Your task to perform on an android device: turn pop-ups on in chrome Image 0: 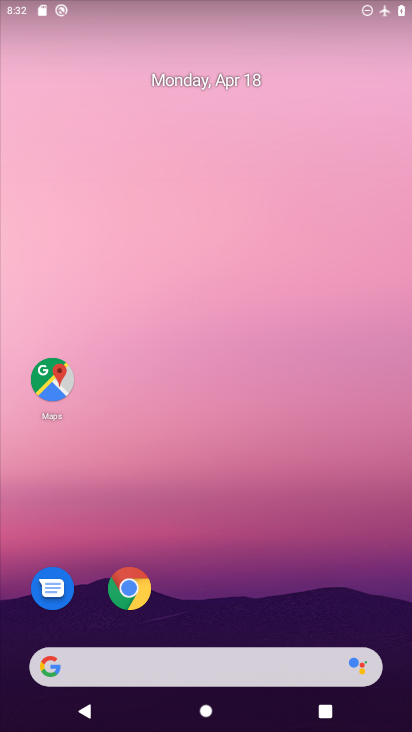
Step 0: click (133, 594)
Your task to perform on an android device: turn pop-ups on in chrome Image 1: 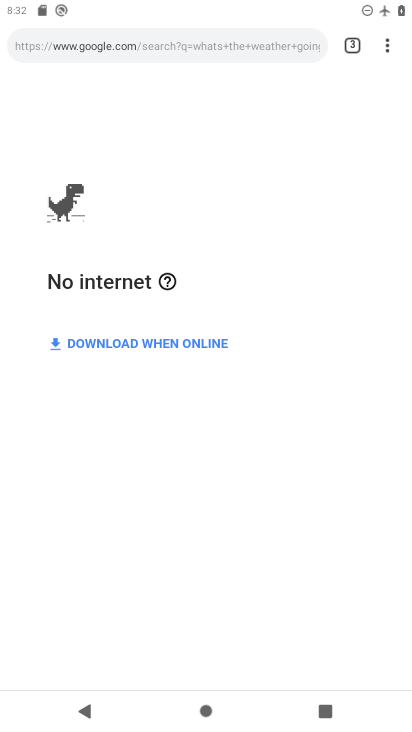
Step 1: click (384, 49)
Your task to perform on an android device: turn pop-ups on in chrome Image 2: 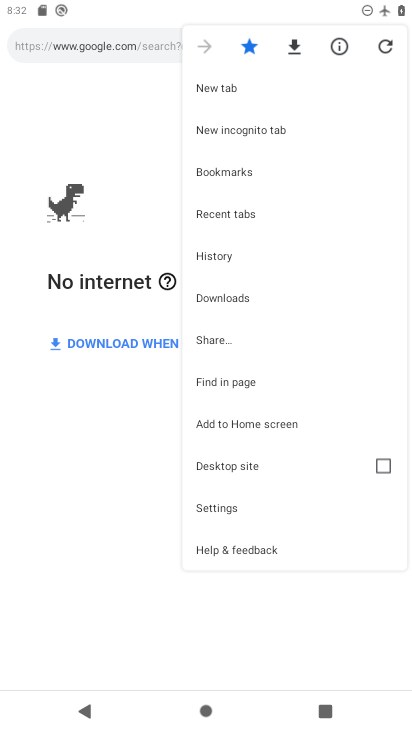
Step 2: click (218, 500)
Your task to perform on an android device: turn pop-ups on in chrome Image 3: 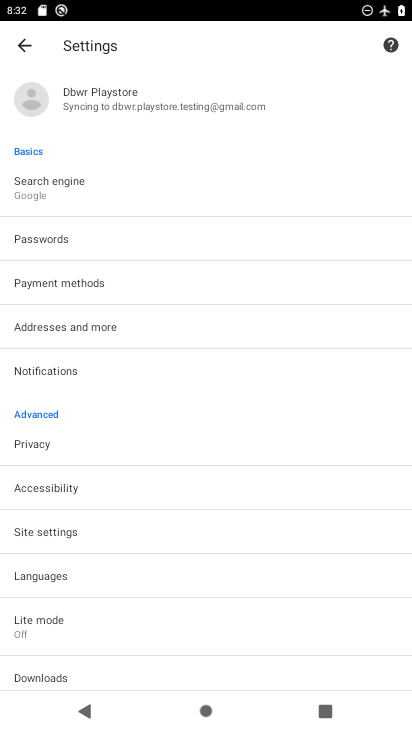
Step 3: click (54, 533)
Your task to perform on an android device: turn pop-ups on in chrome Image 4: 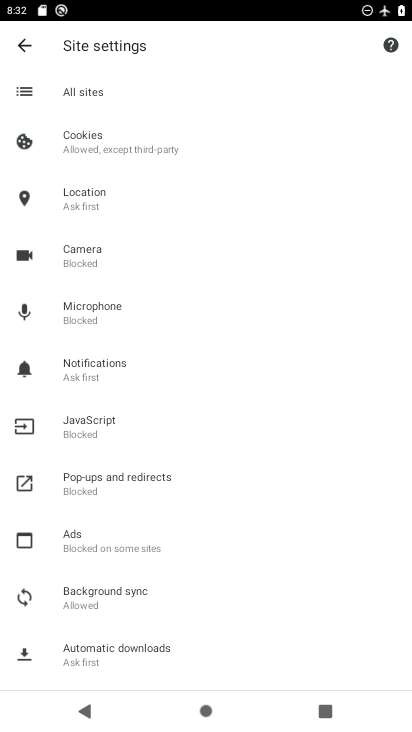
Step 4: click (99, 480)
Your task to perform on an android device: turn pop-ups on in chrome Image 5: 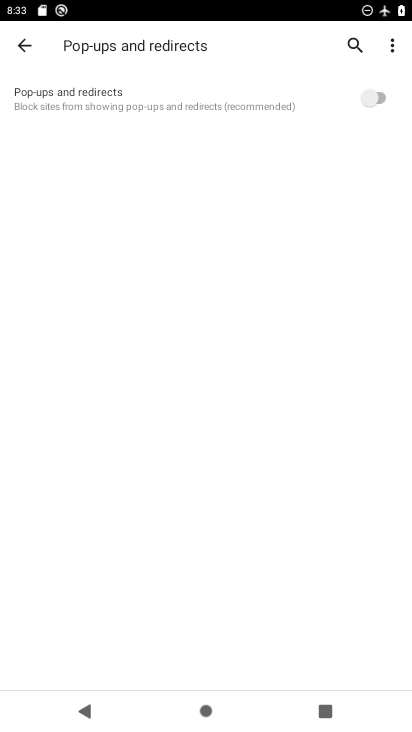
Step 5: click (376, 91)
Your task to perform on an android device: turn pop-ups on in chrome Image 6: 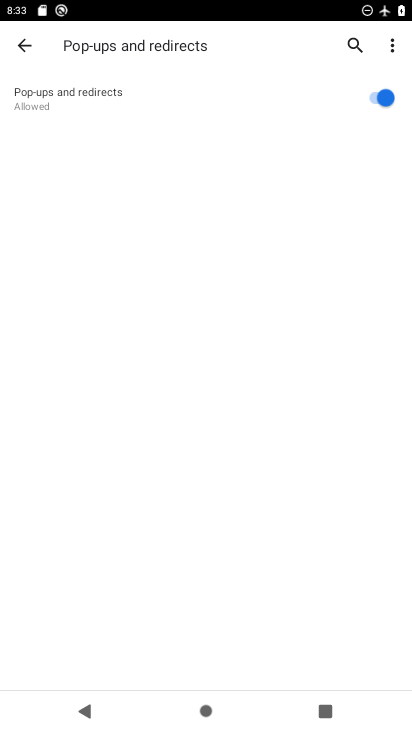
Step 6: task complete